Your task to perform on an android device: Show me the alarms in the clock app Image 0: 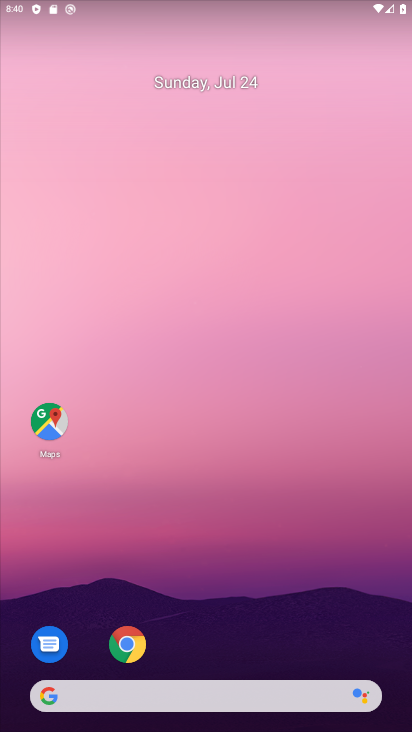
Step 0: drag from (276, 623) to (353, 96)
Your task to perform on an android device: Show me the alarms in the clock app Image 1: 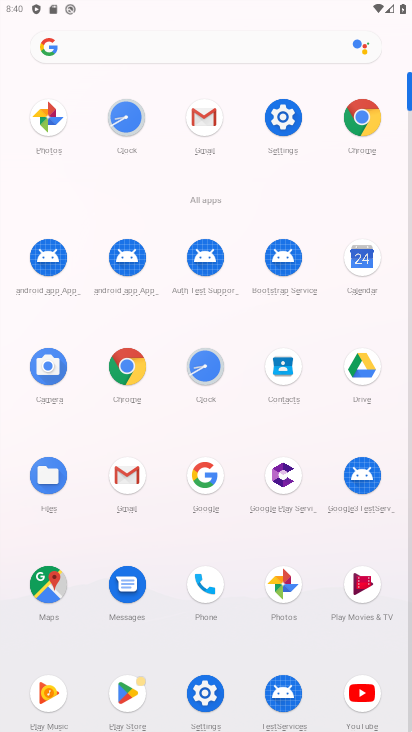
Step 1: click (211, 361)
Your task to perform on an android device: Show me the alarms in the clock app Image 2: 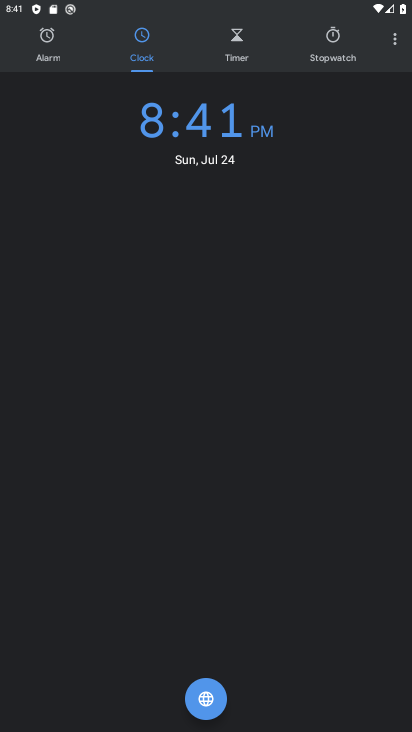
Step 2: click (393, 52)
Your task to perform on an android device: Show me the alarms in the clock app Image 3: 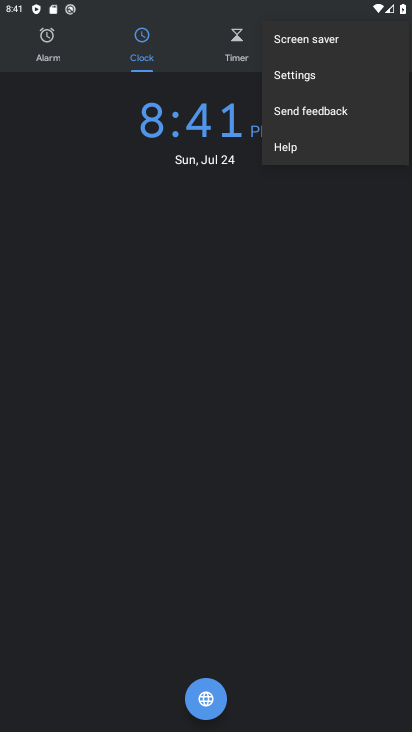
Step 3: click (56, 48)
Your task to perform on an android device: Show me the alarms in the clock app Image 4: 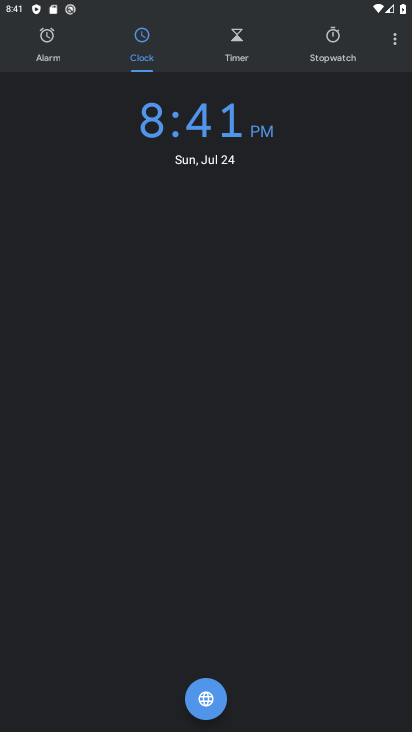
Step 4: click (56, 48)
Your task to perform on an android device: Show me the alarms in the clock app Image 5: 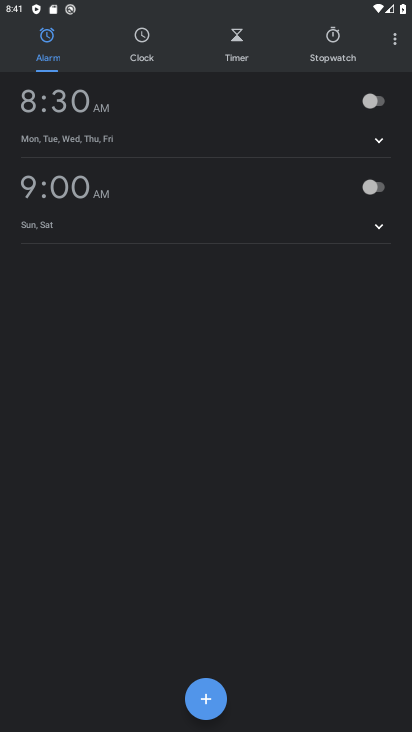
Step 5: task complete